Your task to perform on an android device: show emergency info Image 0: 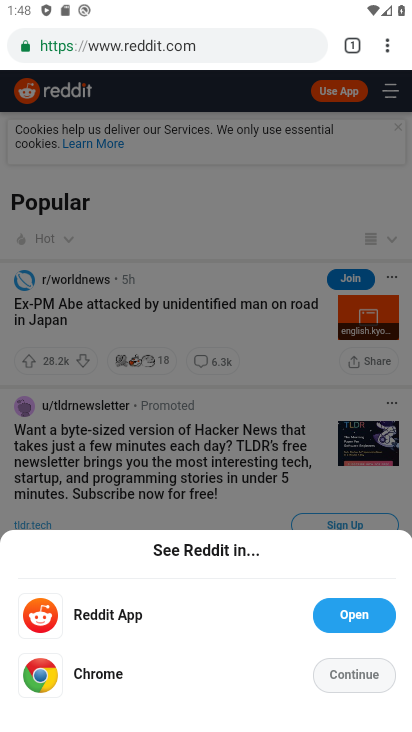
Step 0: press home button
Your task to perform on an android device: show emergency info Image 1: 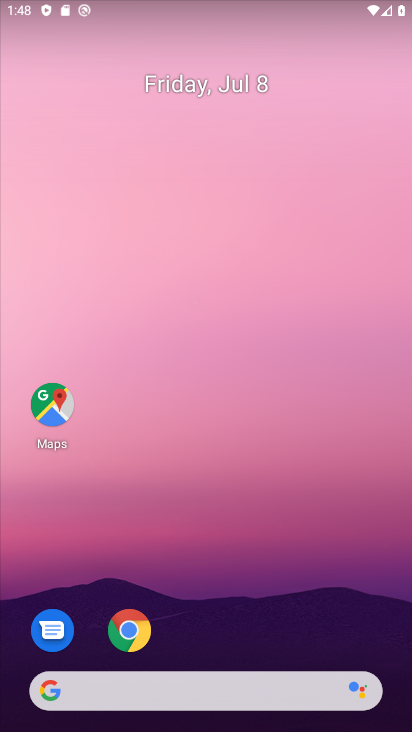
Step 1: drag from (304, 622) to (218, 168)
Your task to perform on an android device: show emergency info Image 2: 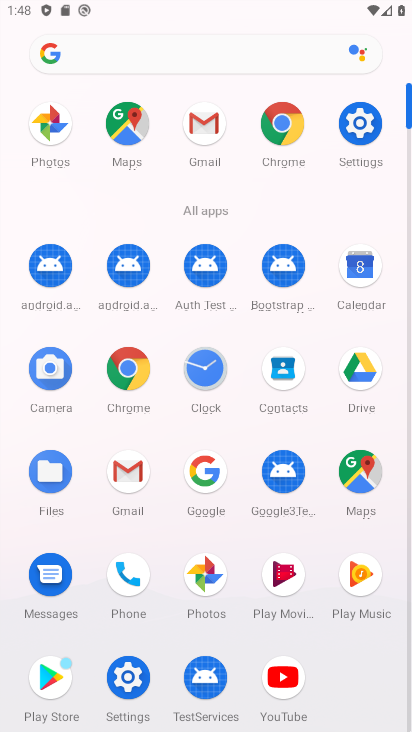
Step 2: click (367, 118)
Your task to perform on an android device: show emergency info Image 3: 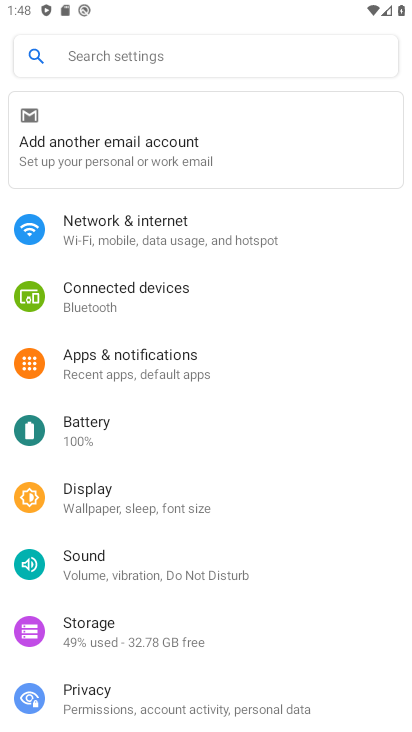
Step 3: drag from (244, 586) to (235, 51)
Your task to perform on an android device: show emergency info Image 4: 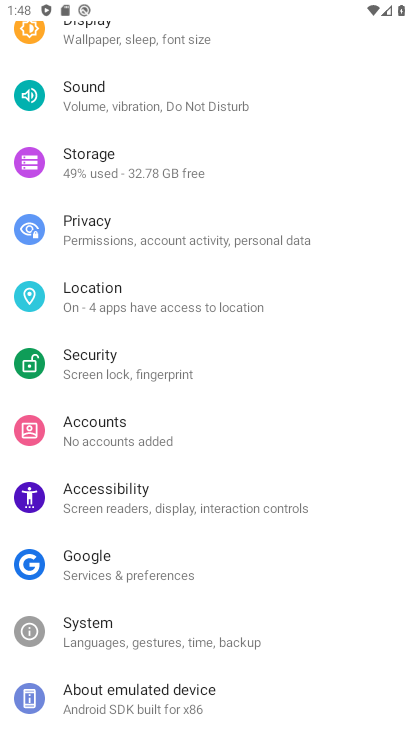
Step 4: click (95, 707)
Your task to perform on an android device: show emergency info Image 5: 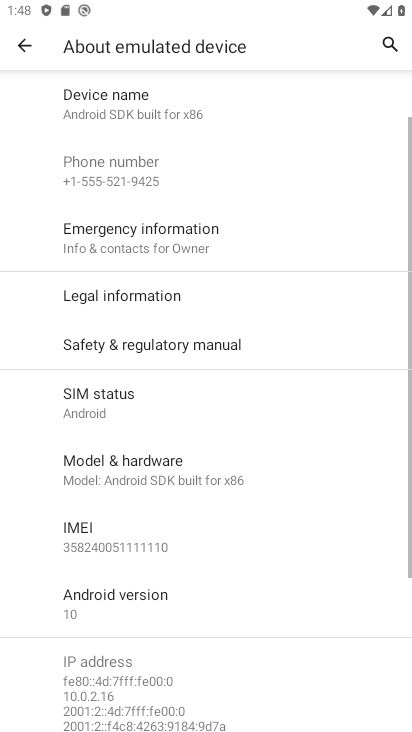
Step 5: click (120, 239)
Your task to perform on an android device: show emergency info Image 6: 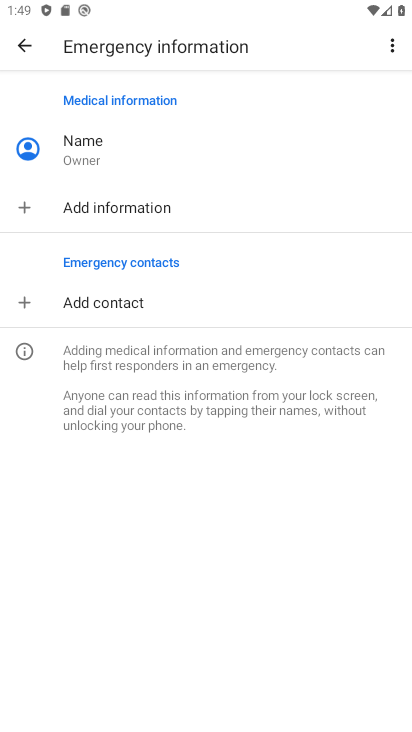
Step 6: task complete